Your task to perform on an android device: change your default location settings in chrome Image 0: 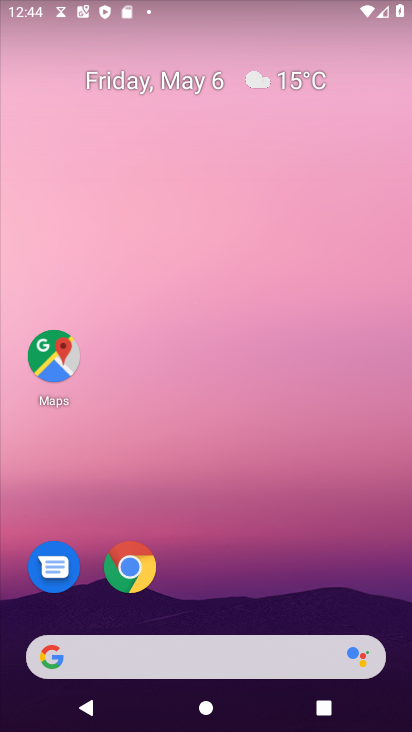
Step 0: drag from (309, 511) to (316, 66)
Your task to perform on an android device: change your default location settings in chrome Image 1: 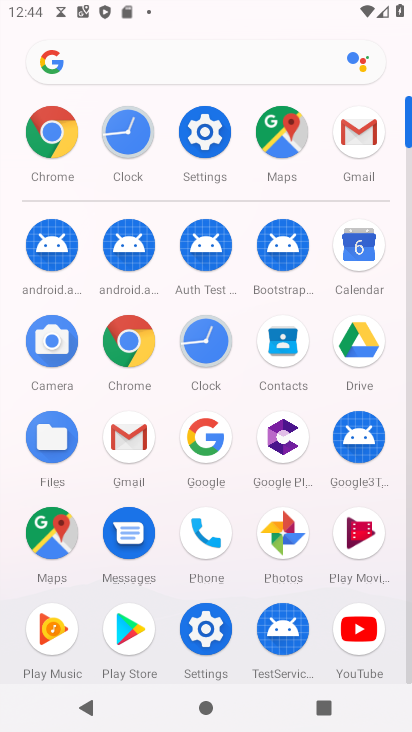
Step 1: click (58, 134)
Your task to perform on an android device: change your default location settings in chrome Image 2: 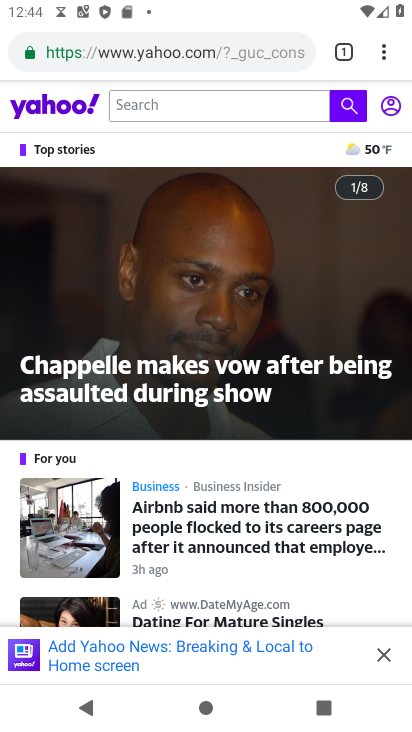
Step 2: drag from (384, 57) to (192, 604)
Your task to perform on an android device: change your default location settings in chrome Image 3: 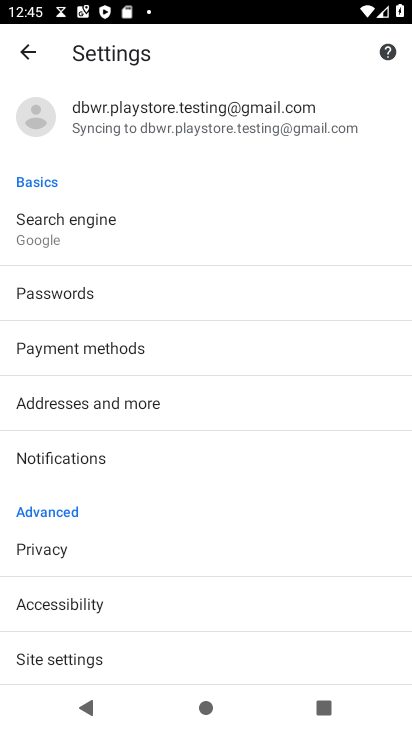
Step 3: drag from (202, 567) to (186, 259)
Your task to perform on an android device: change your default location settings in chrome Image 4: 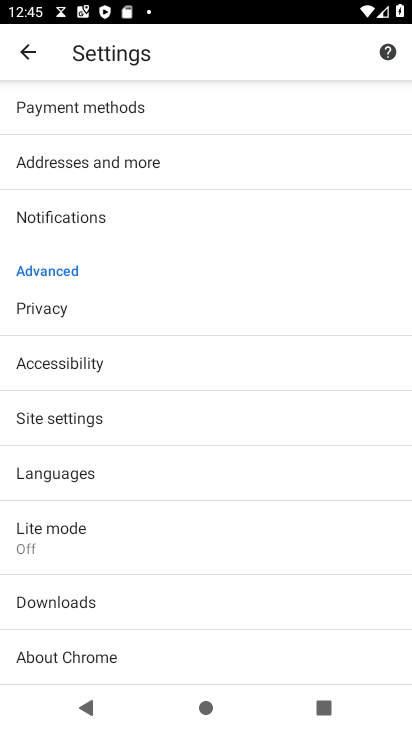
Step 4: drag from (137, 587) to (202, 158)
Your task to perform on an android device: change your default location settings in chrome Image 5: 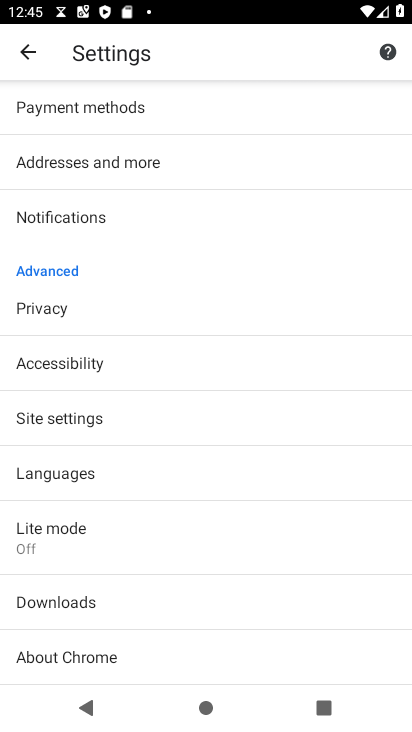
Step 5: drag from (214, 230) to (212, 582)
Your task to perform on an android device: change your default location settings in chrome Image 6: 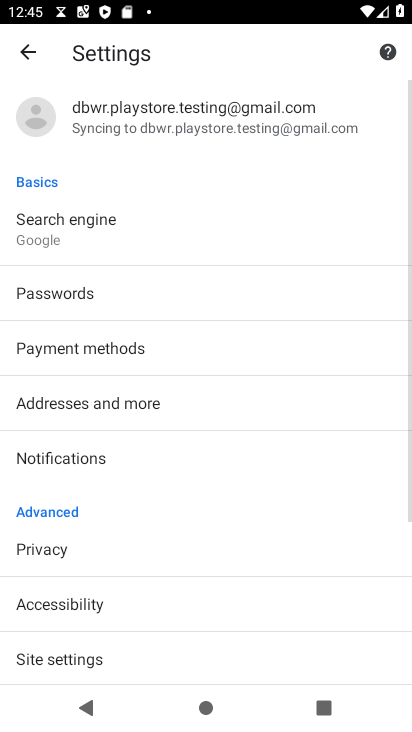
Step 6: drag from (236, 305) to (249, 610)
Your task to perform on an android device: change your default location settings in chrome Image 7: 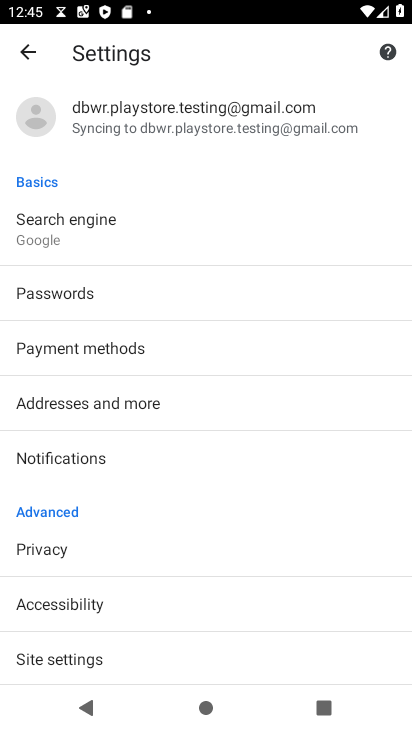
Step 7: drag from (150, 562) to (159, 224)
Your task to perform on an android device: change your default location settings in chrome Image 8: 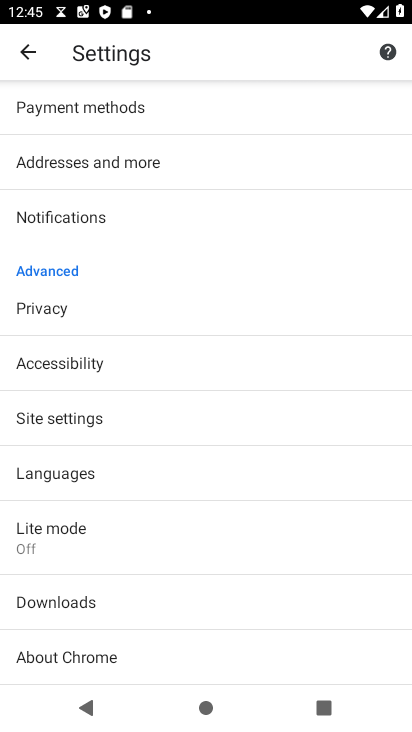
Step 8: click (66, 427)
Your task to perform on an android device: change your default location settings in chrome Image 9: 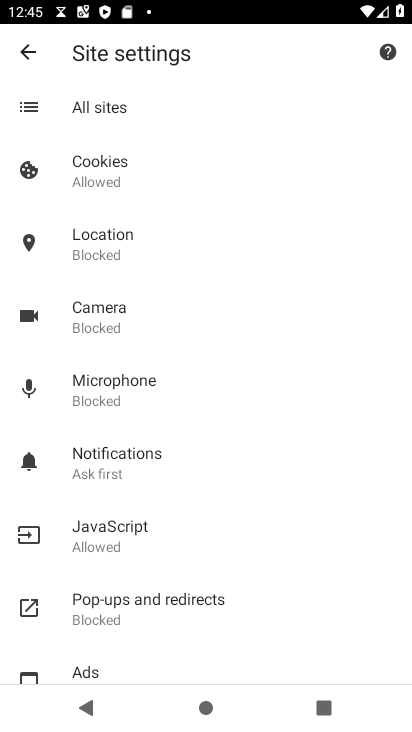
Step 9: click (122, 243)
Your task to perform on an android device: change your default location settings in chrome Image 10: 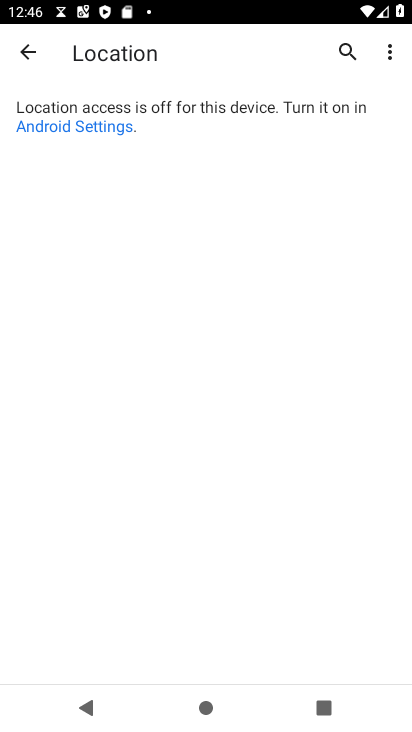
Step 10: task complete